Your task to perform on an android device: uninstall "Instagram" Image 0: 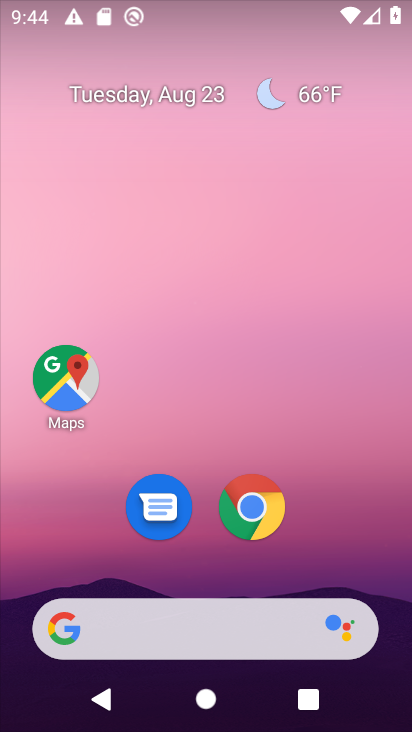
Step 0: drag from (398, 630) to (355, 67)
Your task to perform on an android device: uninstall "Instagram" Image 1: 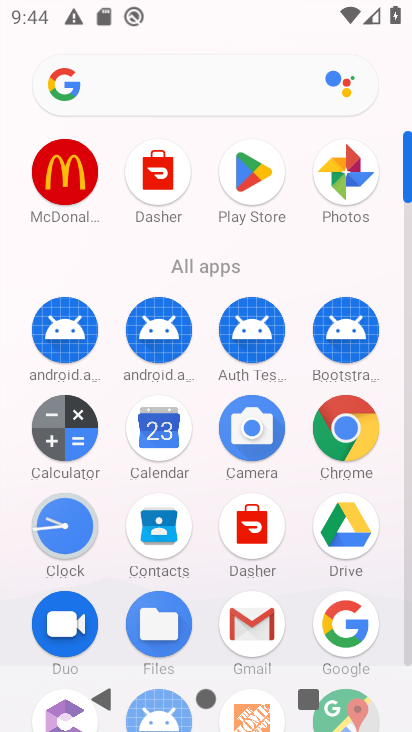
Step 1: click (408, 649)
Your task to perform on an android device: uninstall "Instagram" Image 2: 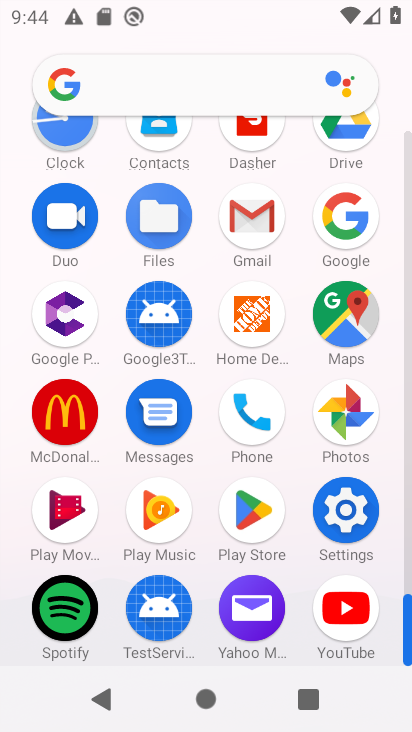
Step 2: click (253, 510)
Your task to perform on an android device: uninstall "Instagram" Image 3: 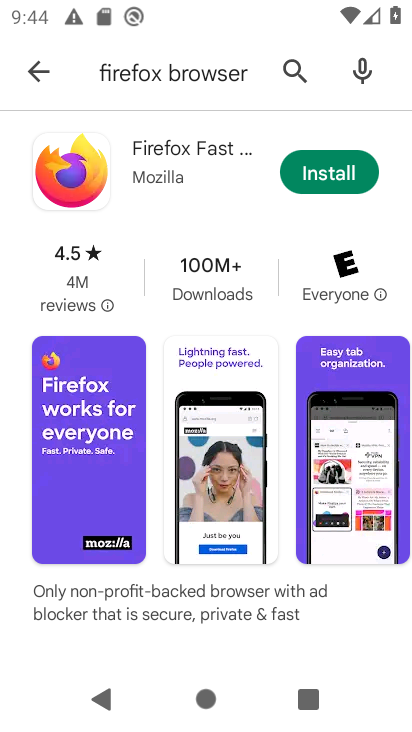
Step 3: click (300, 74)
Your task to perform on an android device: uninstall "Instagram" Image 4: 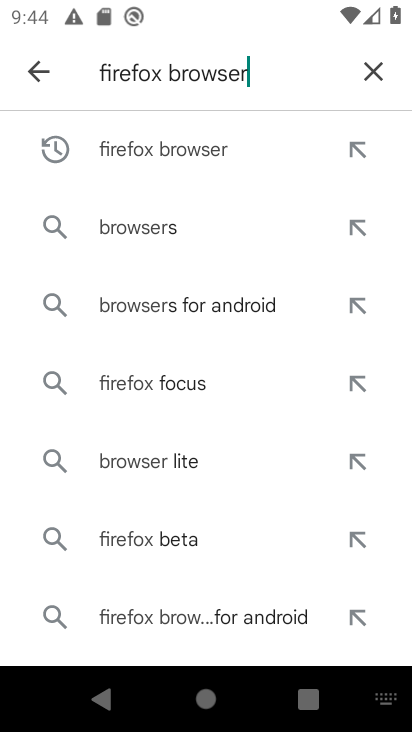
Step 4: click (369, 70)
Your task to perform on an android device: uninstall "Instagram" Image 5: 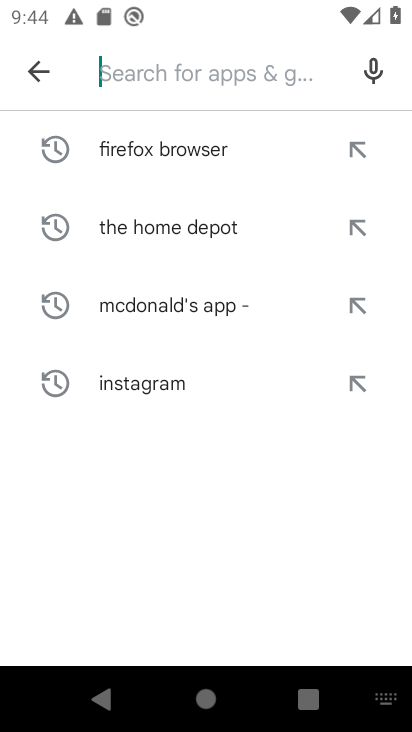
Step 5: type "Instagram"
Your task to perform on an android device: uninstall "Instagram" Image 6: 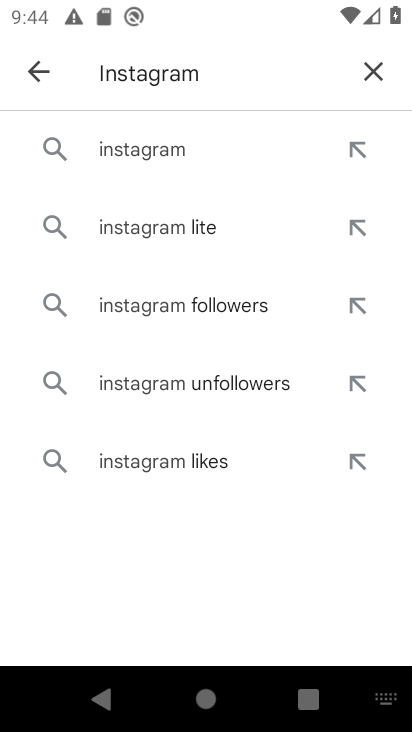
Step 6: click (151, 151)
Your task to perform on an android device: uninstall "Instagram" Image 7: 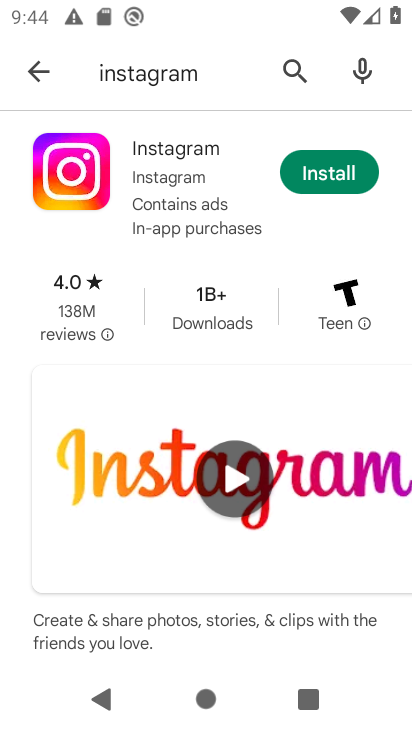
Step 7: task complete